Your task to perform on an android device: clear history in the chrome app Image 0: 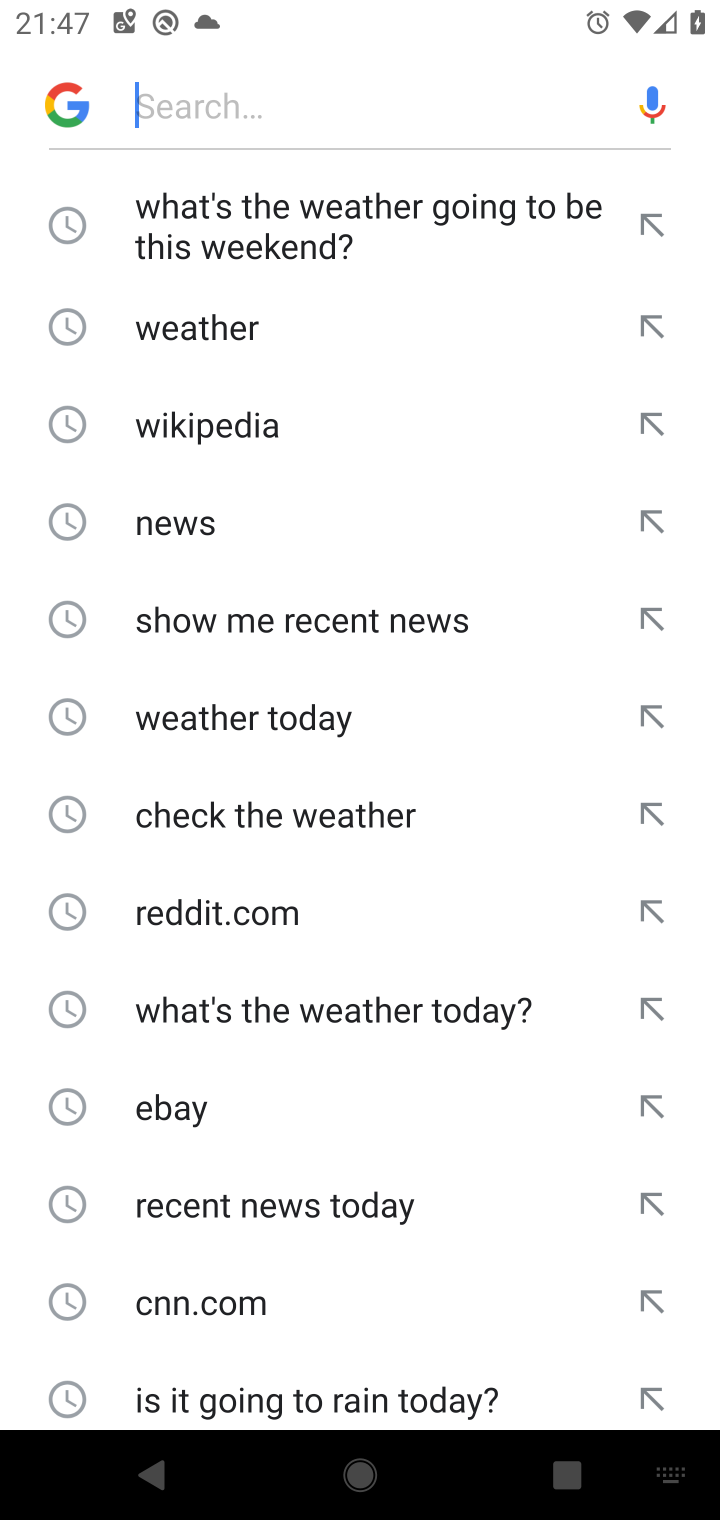
Step 0: press home button
Your task to perform on an android device: clear history in the chrome app Image 1: 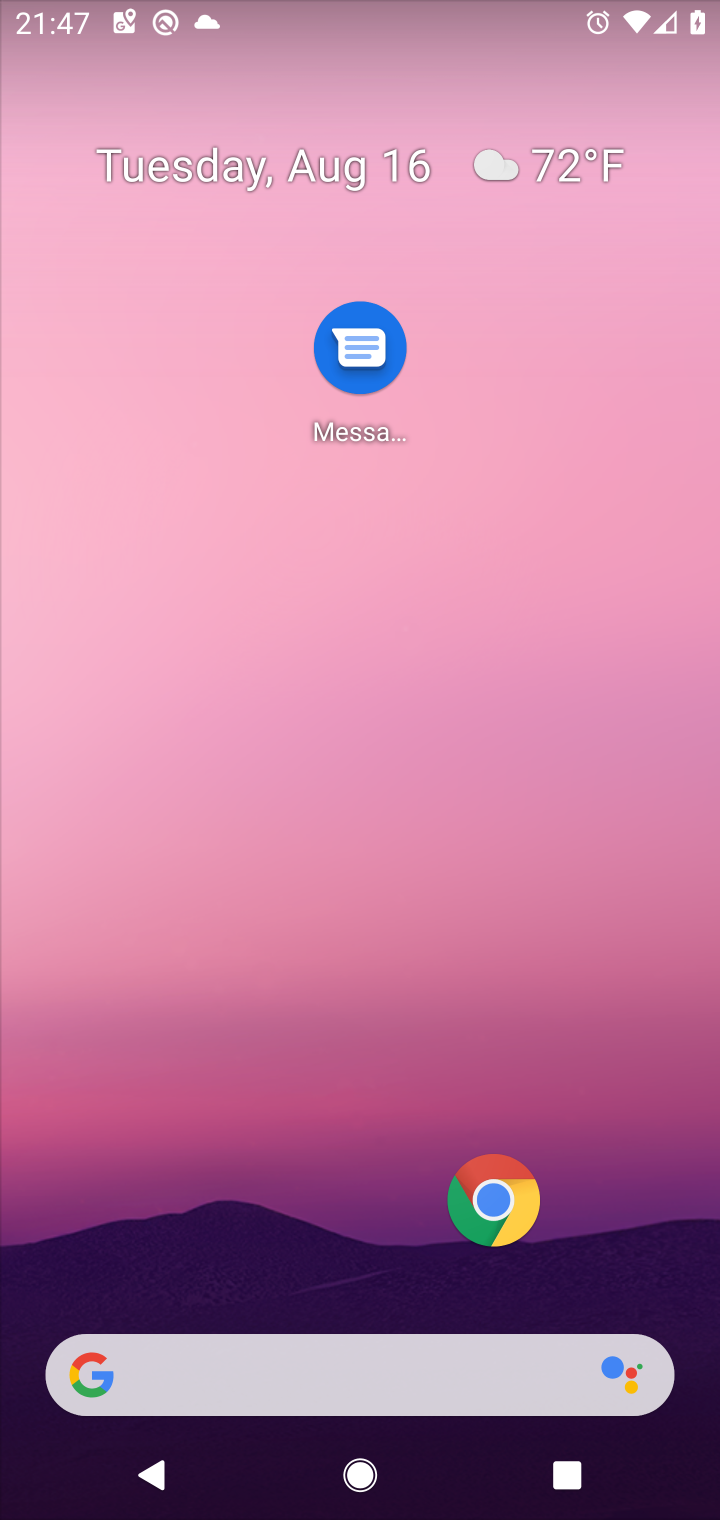
Step 1: click (518, 1184)
Your task to perform on an android device: clear history in the chrome app Image 2: 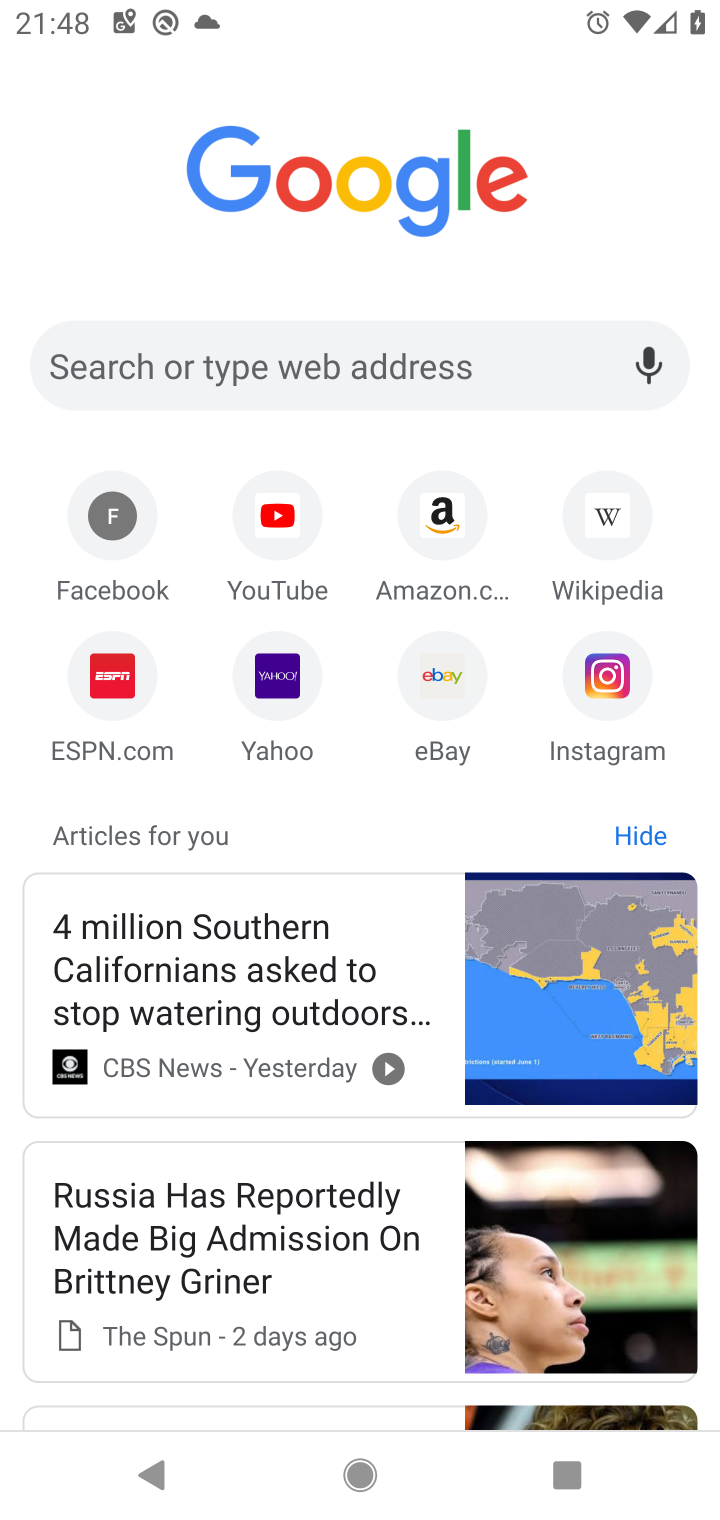
Step 2: click (161, 384)
Your task to perform on an android device: clear history in the chrome app Image 3: 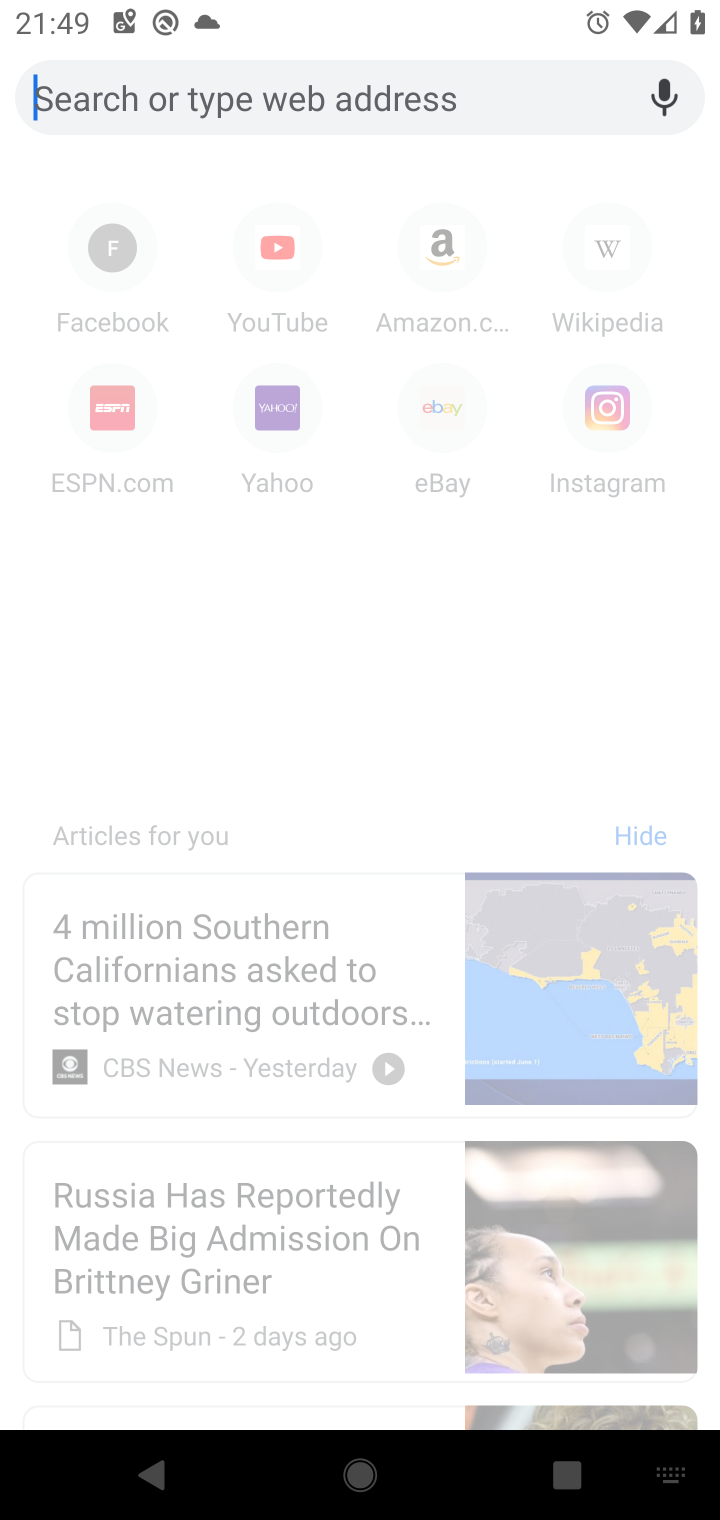
Step 3: task complete